Your task to perform on an android device: turn on improve location accuracy Image 0: 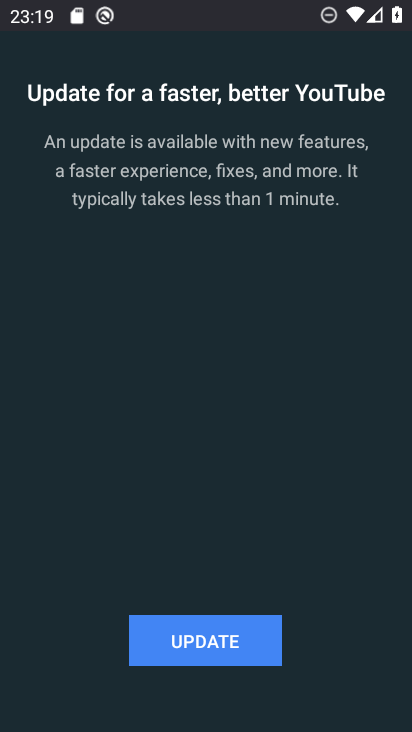
Step 0: press home button
Your task to perform on an android device: turn on improve location accuracy Image 1: 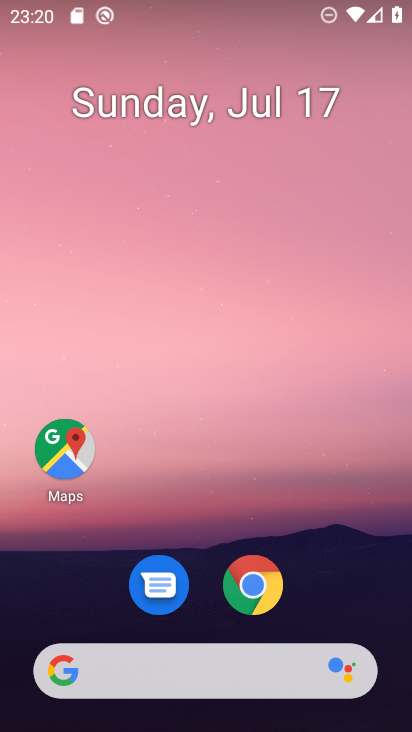
Step 1: drag from (191, 667) to (385, 62)
Your task to perform on an android device: turn on improve location accuracy Image 2: 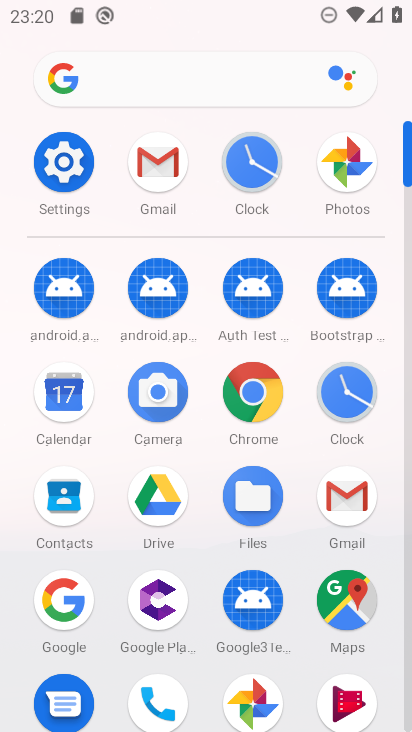
Step 2: click (66, 173)
Your task to perform on an android device: turn on improve location accuracy Image 3: 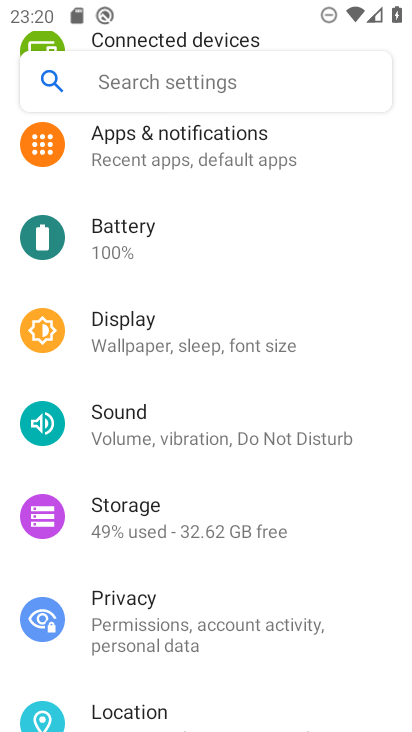
Step 3: drag from (193, 602) to (291, 133)
Your task to perform on an android device: turn on improve location accuracy Image 4: 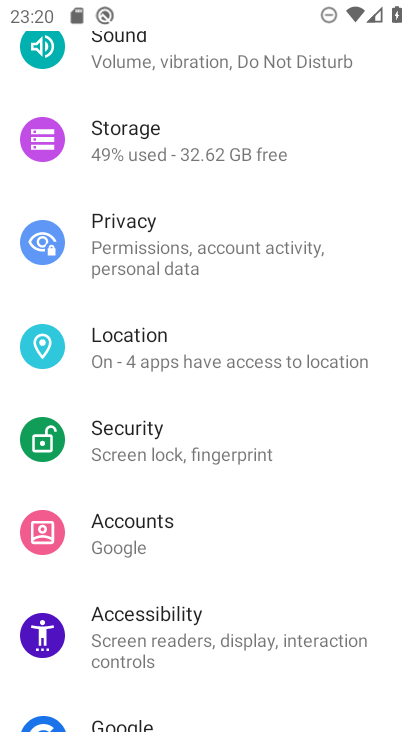
Step 4: click (159, 354)
Your task to perform on an android device: turn on improve location accuracy Image 5: 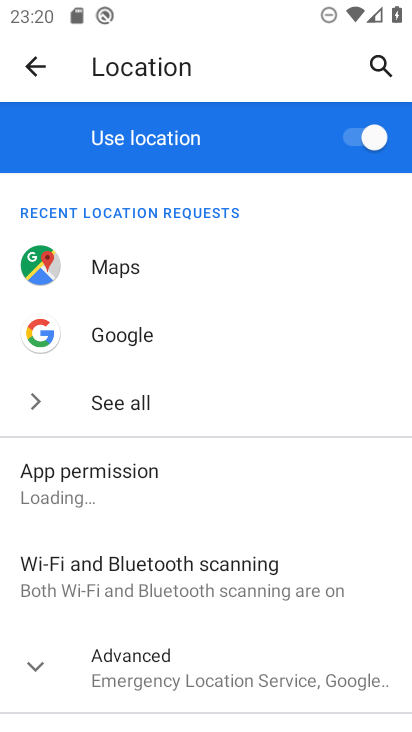
Step 5: drag from (169, 637) to (253, 341)
Your task to perform on an android device: turn on improve location accuracy Image 6: 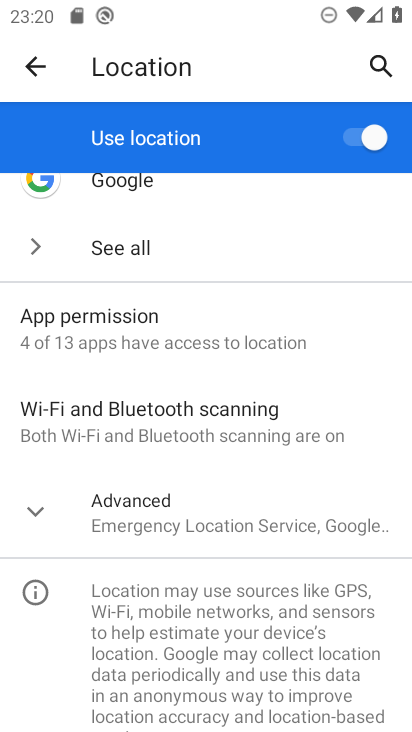
Step 6: click (152, 517)
Your task to perform on an android device: turn on improve location accuracy Image 7: 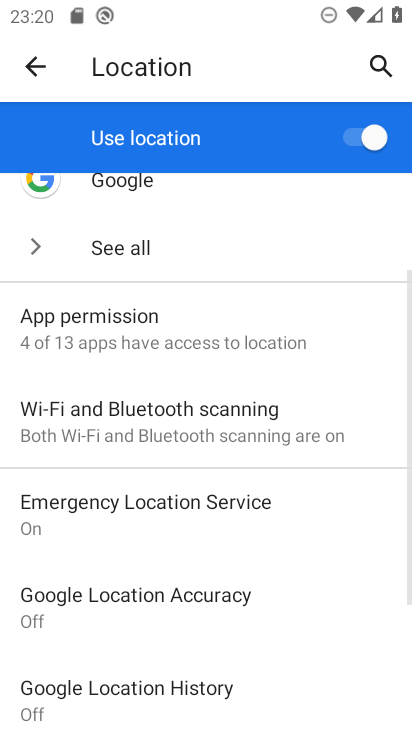
Step 7: click (179, 598)
Your task to perform on an android device: turn on improve location accuracy Image 8: 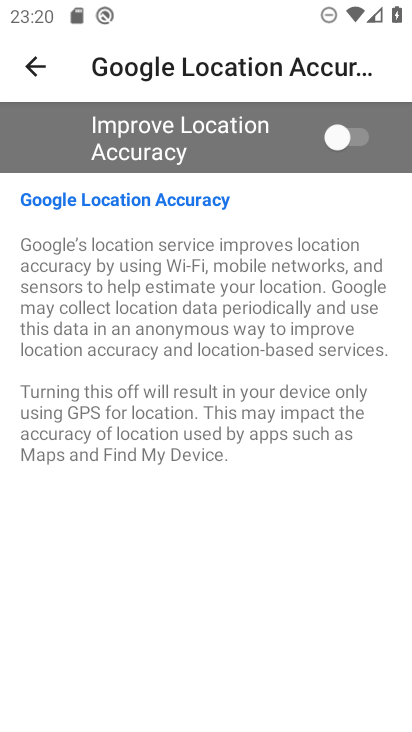
Step 8: click (349, 140)
Your task to perform on an android device: turn on improve location accuracy Image 9: 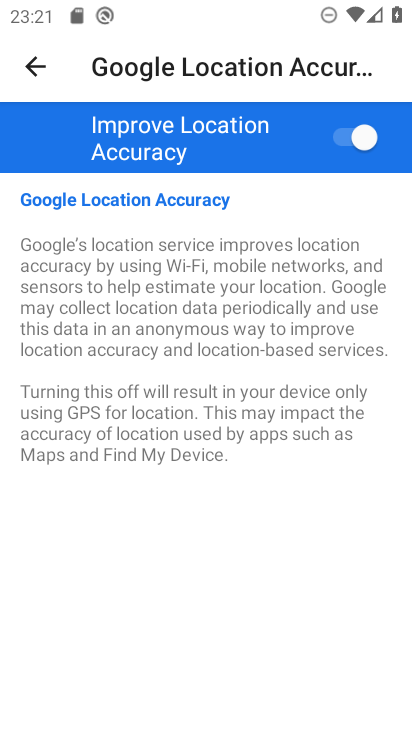
Step 9: task complete